Your task to perform on an android device: turn on the 24-hour format for clock Image 0: 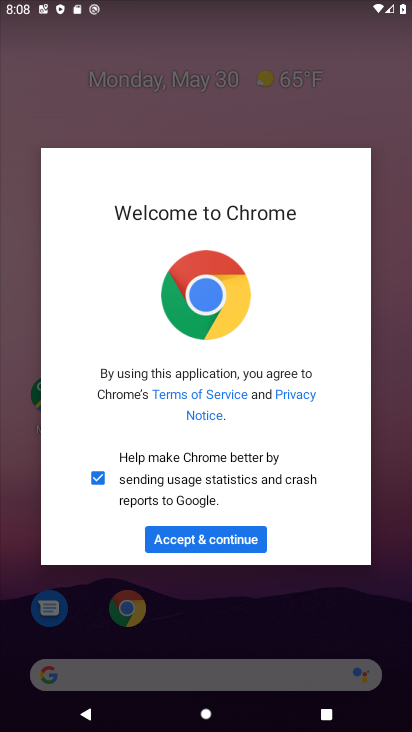
Step 0: press home button
Your task to perform on an android device: turn on the 24-hour format for clock Image 1: 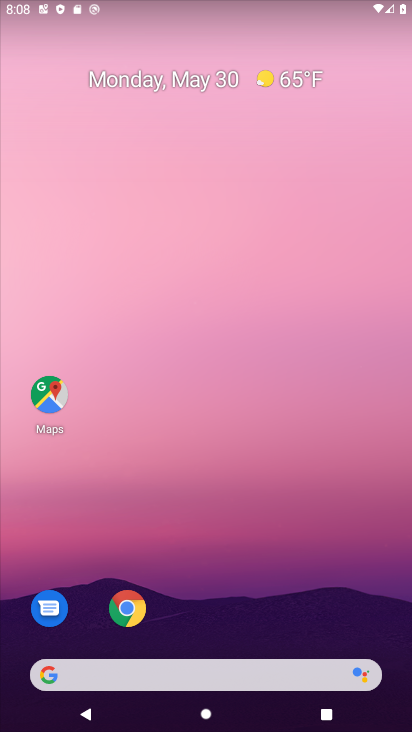
Step 1: drag from (203, 623) to (221, 233)
Your task to perform on an android device: turn on the 24-hour format for clock Image 2: 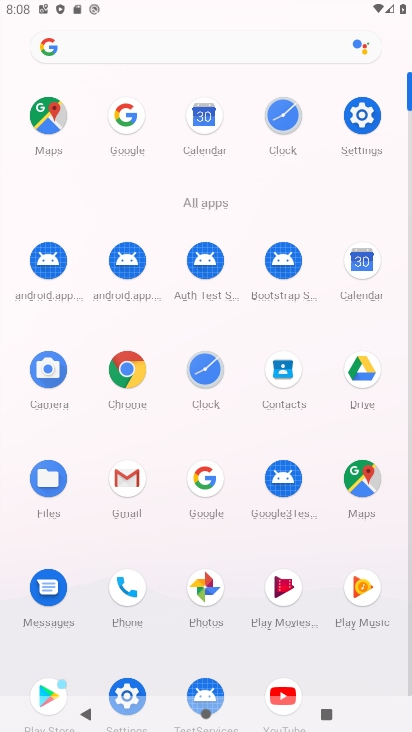
Step 2: click (196, 374)
Your task to perform on an android device: turn on the 24-hour format for clock Image 3: 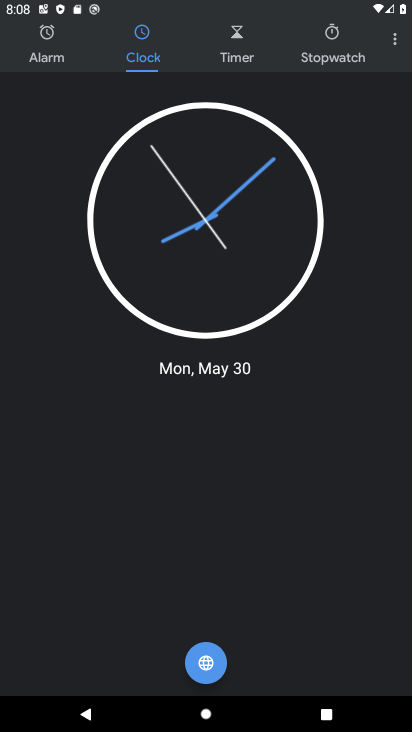
Step 3: click (398, 40)
Your task to perform on an android device: turn on the 24-hour format for clock Image 4: 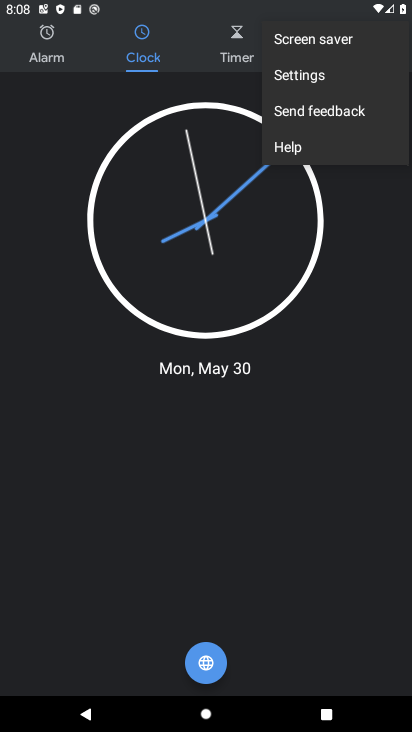
Step 4: click (342, 80)
Your task to perform on an android device: turn on the 24-hour format for clock Image 5: 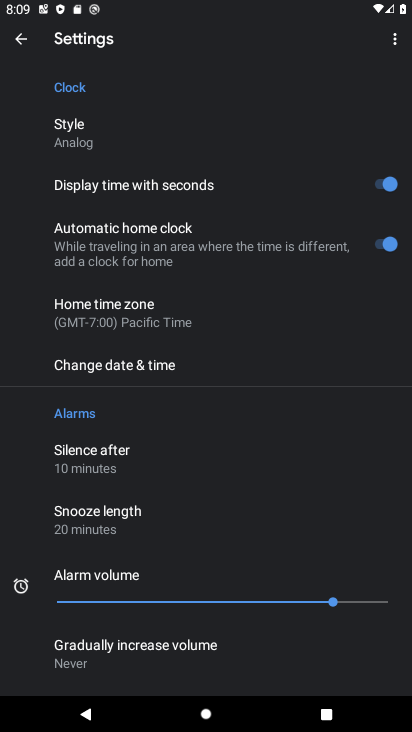
Step 5: click (99, 368)
Your task to perform on an android device: turn on the 24-hour format for clock Image 6: 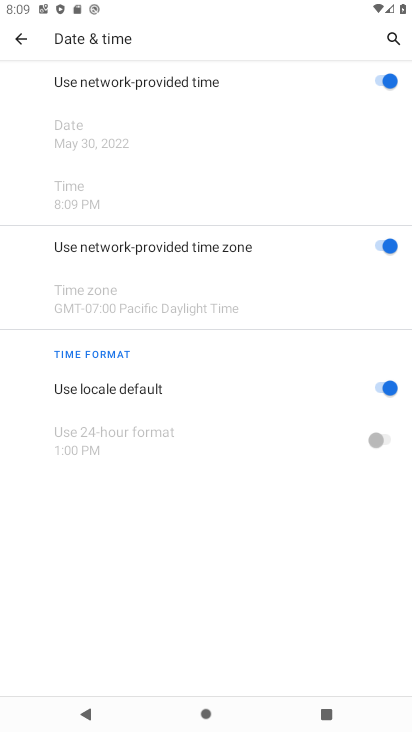
Step 6: click (377, 384)
Your task to perform on an android device: turn on the 24-hour format for clock Image 7: 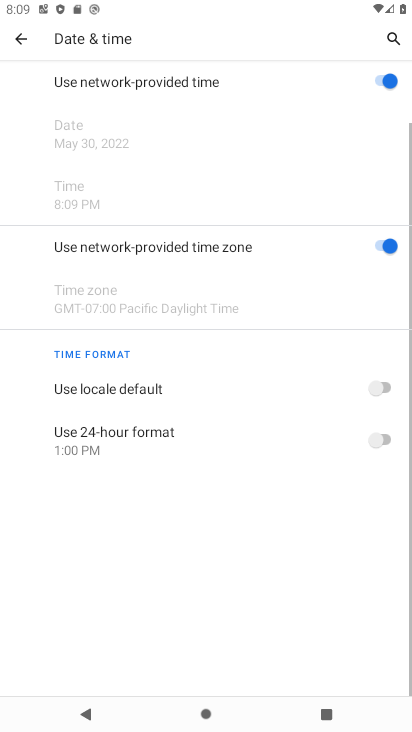
Step 7: click (395, 444)
Your task to perform on an android device: turn on the 24-hour format for clock Image 8: 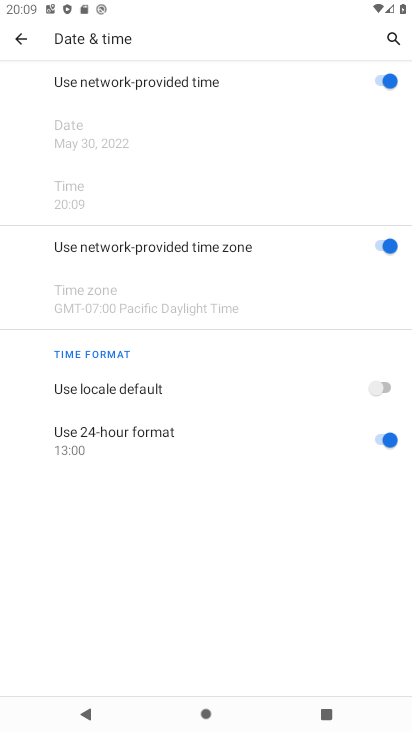
Step 8: task complete